Your task to perform on an android device: Go to sound settings Image 0: 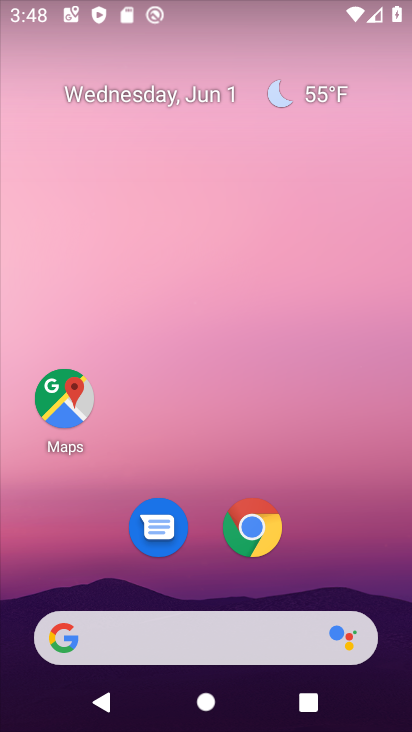
Step 0: press home button
Your task to perform on an android device: Go to sound settings Image 1: 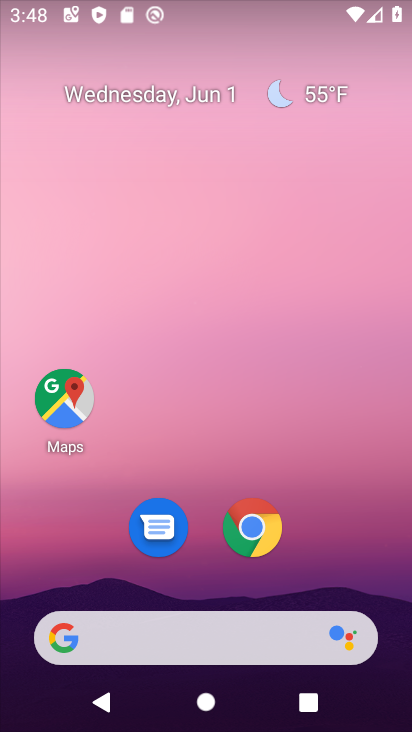
Step 1: drag from (387, 557) to (286, 51)
Your task to perform on an android device: Go to sound settings Image 2: 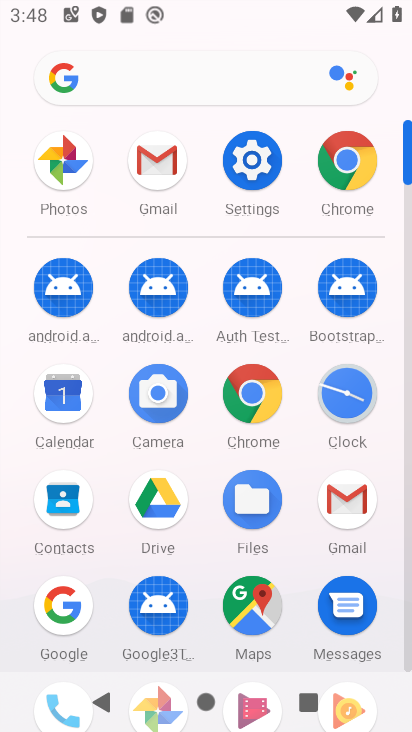
Step 2: click (259, 185)
Your task to perform on an android device: Go to sound settings Image 3: 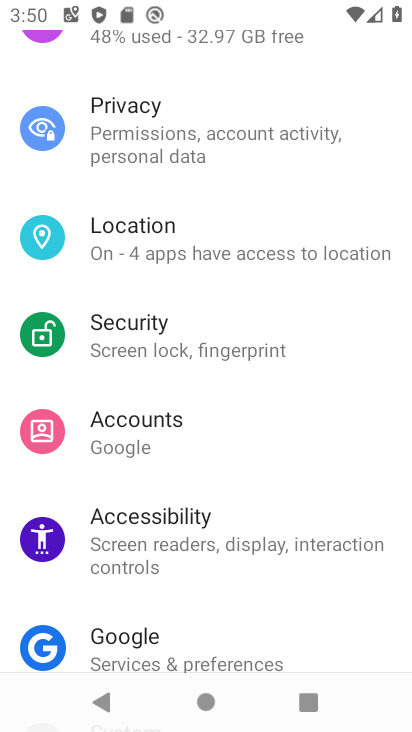
Step 3: drag from (342, 124) to (342, 726)
Your task to perform on an android device: Go to sound settings Image 4: 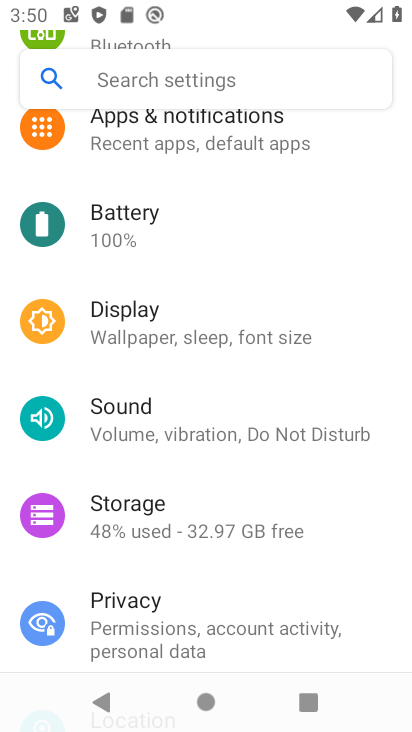
Step 4: click (161, 415)
Your task to perform on an android device: Go to sound settings Image 5: 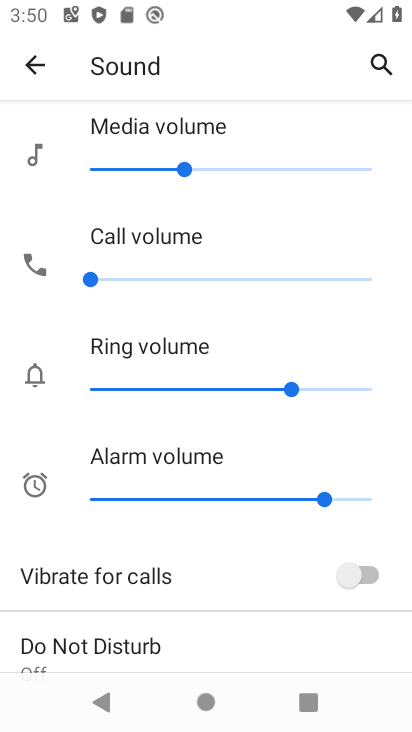
Step 5: task complete